Your task to perform on an android device: Go to wifi settings Image 0: 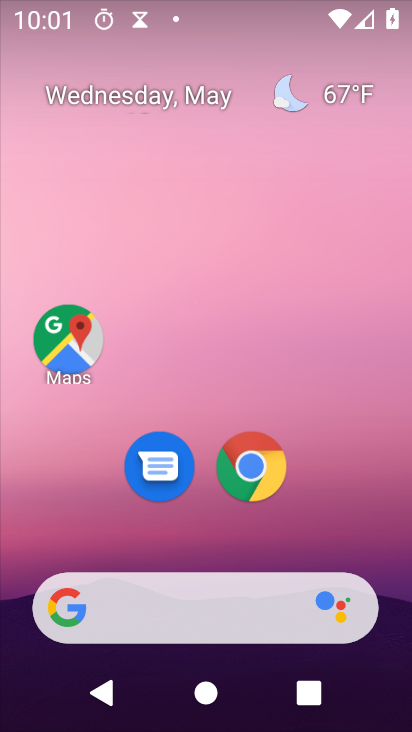
Step 0: drag from (344, 532) to (198, 2)
Your task to perform on an android device: Go to wifi settings Image 1: 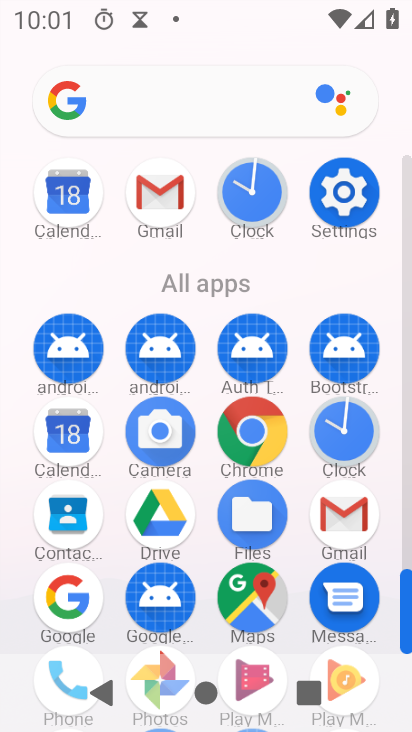
Step 1: click (343, 223)
Your task to perform on an android device: Go to wifi settings Image 2: 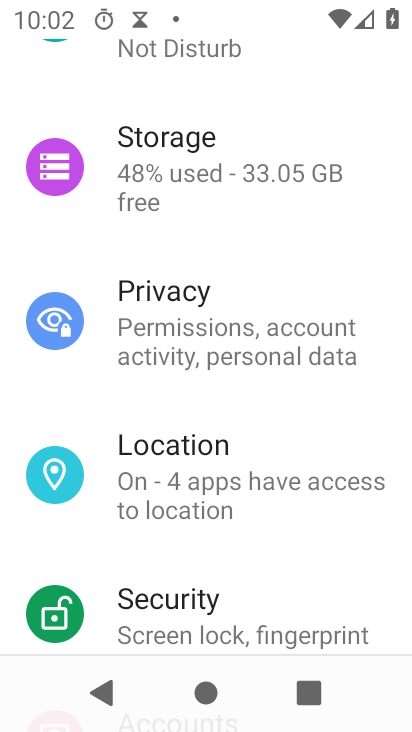
Step 2: drag from (199, 162) to (188, 593)
Your task to perform on an android device: Go to wifi settings Image 3: 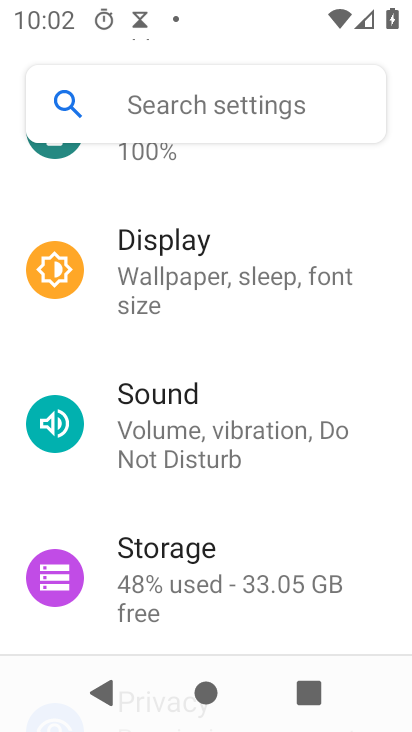
Step 3: drag from (197, 227) to (179, 695)
Your task to perform on an android device: Go to wifi settings Image 4: 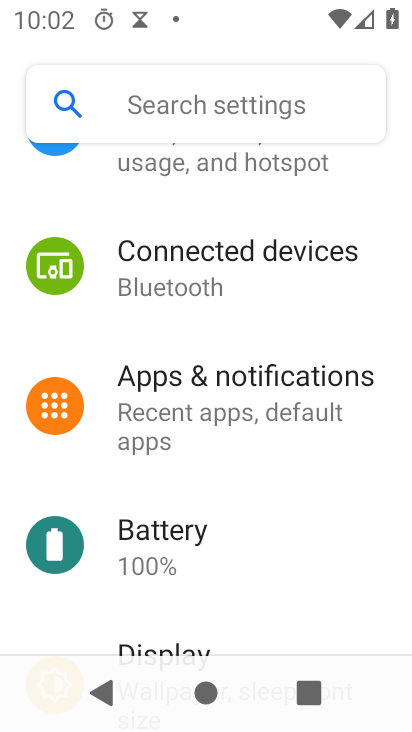
Step 4: drag from (188, 181) to (159, 597)
Your task to perform on an android device: Go to wifi settings Image 5: 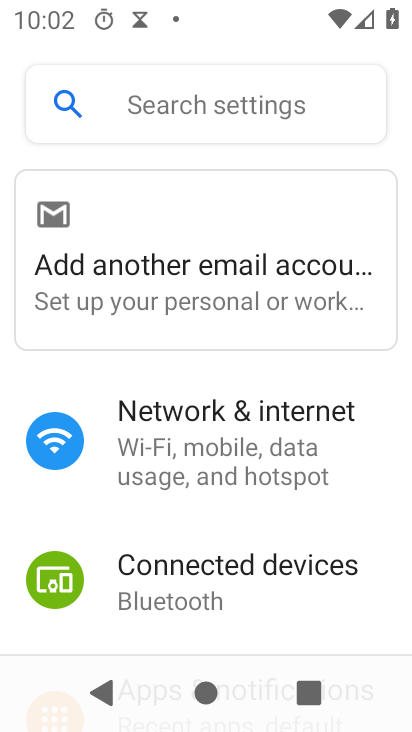
Step 5: click (167, 444)
Your task to perform on an android device: Go to wifi settings Image 6: 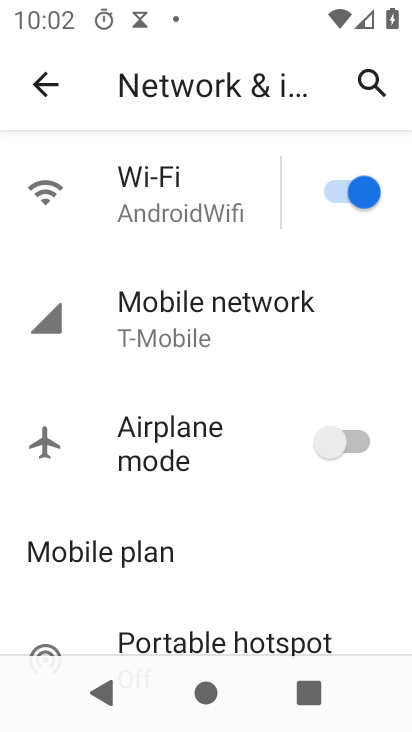
Step 6: click (199, 214)
Your task to perform on an android device: Go to wifi settings Image 7: 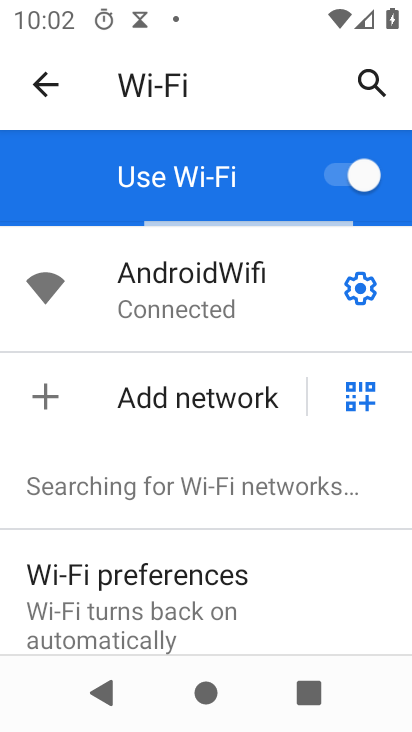
Step 7: task complete